Your task to perform on an android device: Go to Google Image 0: 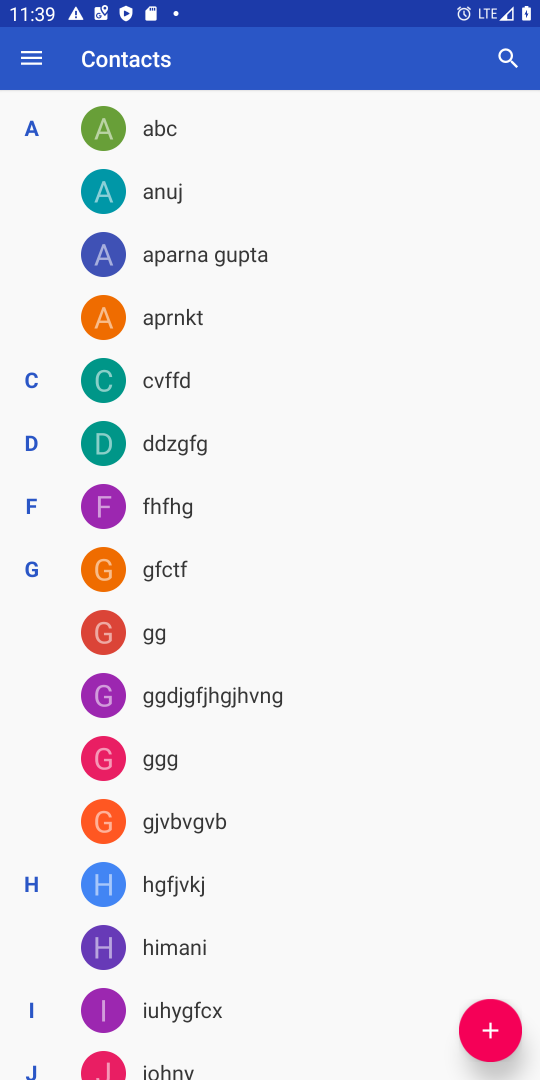
Step 0: press home button
Your task to perform on an android device: Go to Google Image 1: 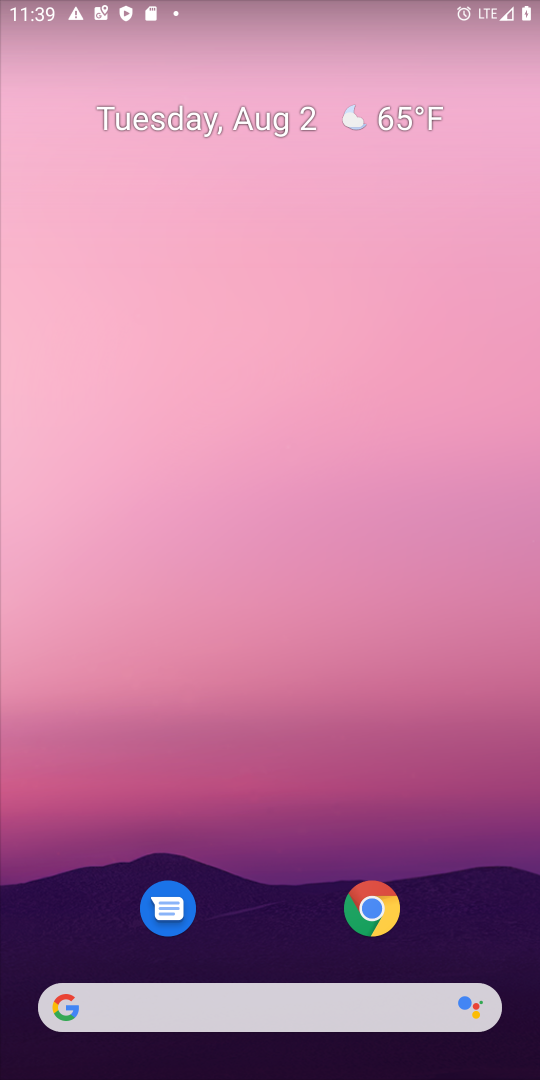
Step 1: drag from (309, 363) to (329, 2)
Your task to perform on an android device: Go to Google Image 2: 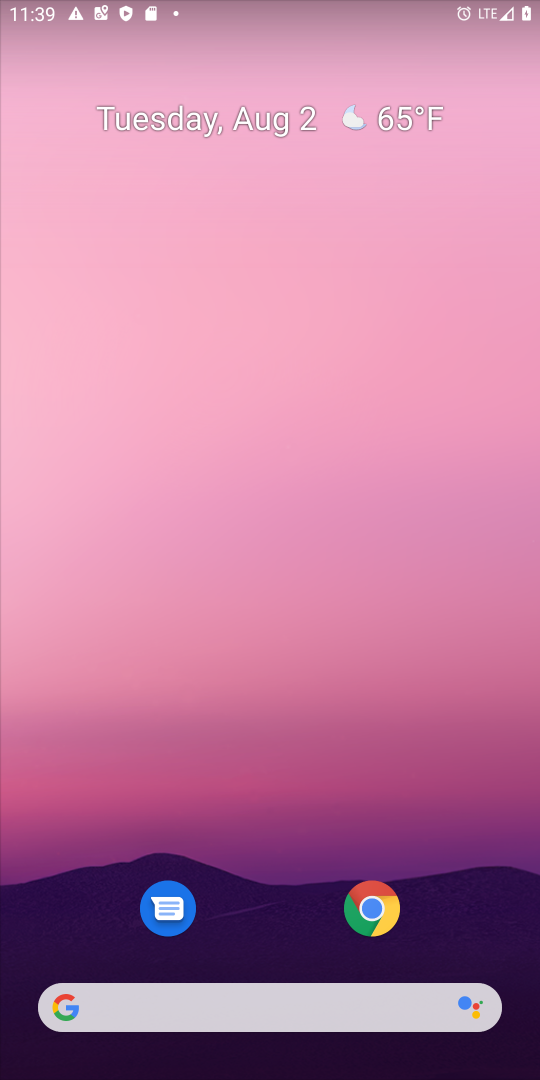
Step 2: drag from (276, 862) to (296, 2)
Your task to perform on an android device: Go to Google Image 3: 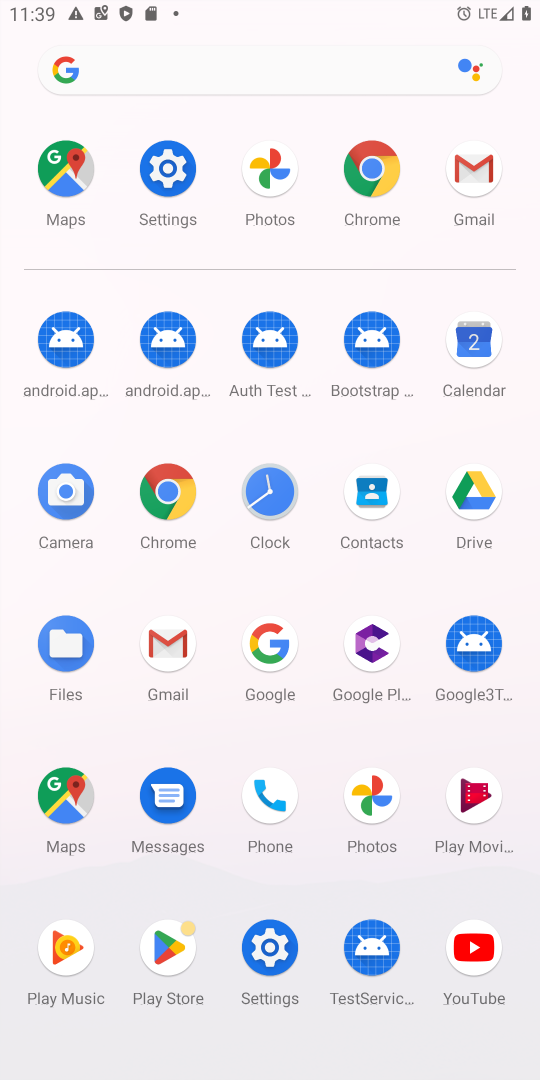
Step 3: click (275, 669)
Your task to perform on an android device: Go to Google Image 4: 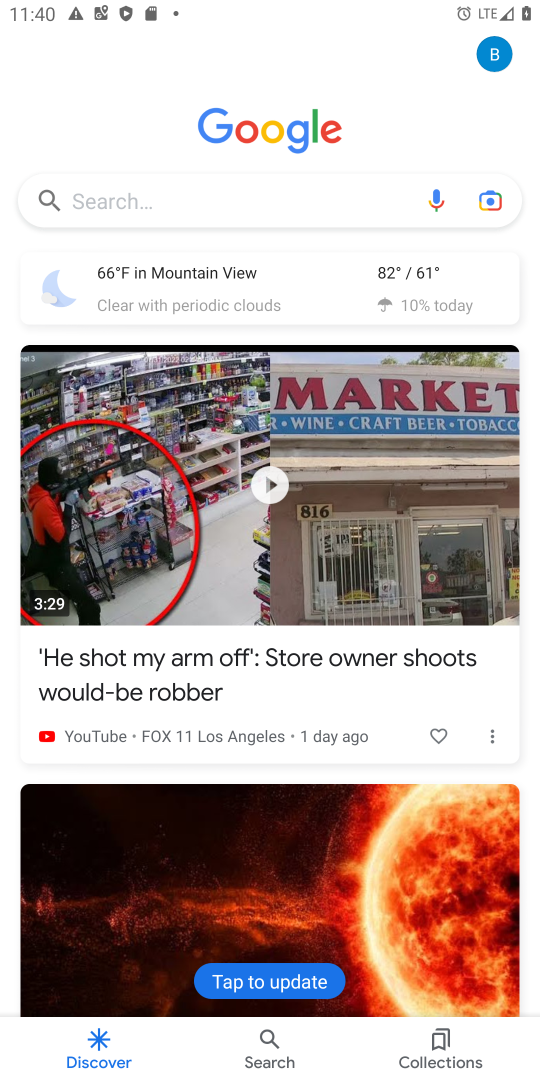
Step 4: task complete